Your task to perform on an android device: change the upload size in google photos Image 0: 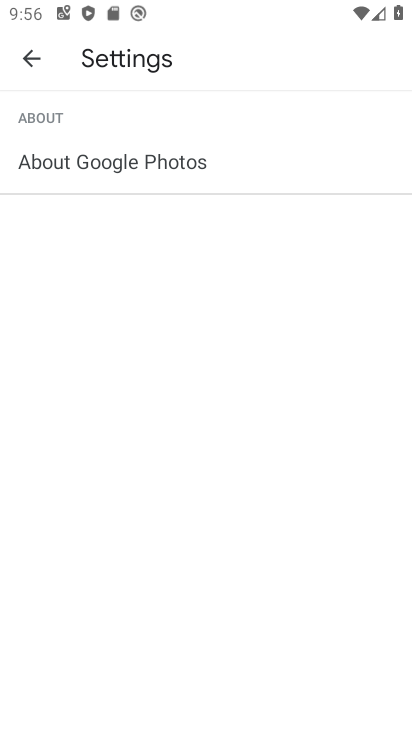
Step 0: press home button
Your task to perform on an android device: change the upload size in google photos Image 1: 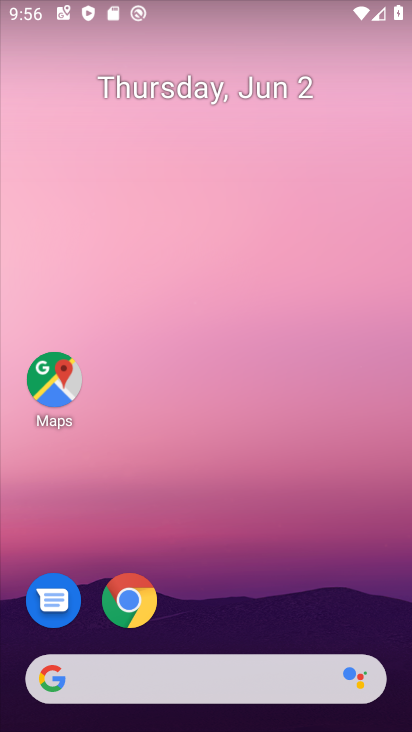
Step 1: drag from (120, 720) to (217, 123)
Your task to perform on an android device: change the upload size in google photos Image 2: 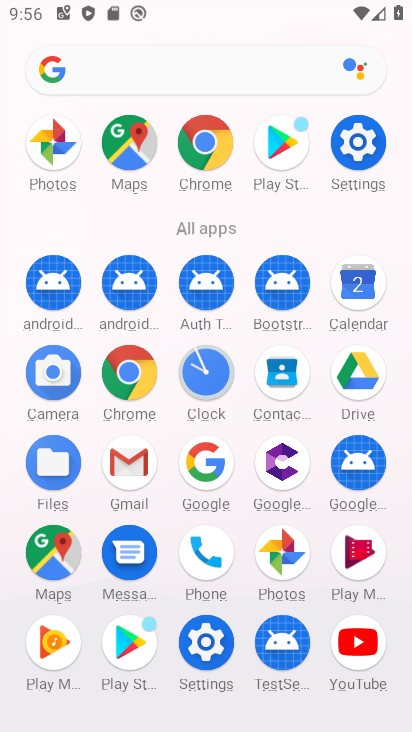
Step 2: click (279, 573)
Your task to perform on an android device: change the upload size in google photos Image 3: 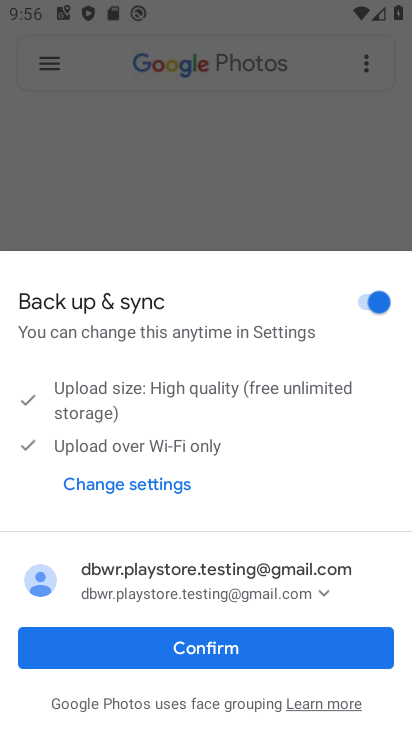
Step 3: click (323, 652)
Your task to perform on an android device: change the upload size in google photos Image 4: 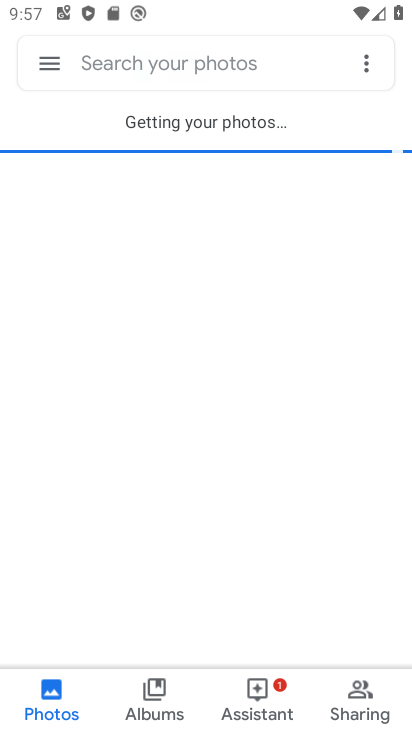
Step 4: click (46, 59)
Your task to perform on an android device: change the upload size in google photos Image 5: 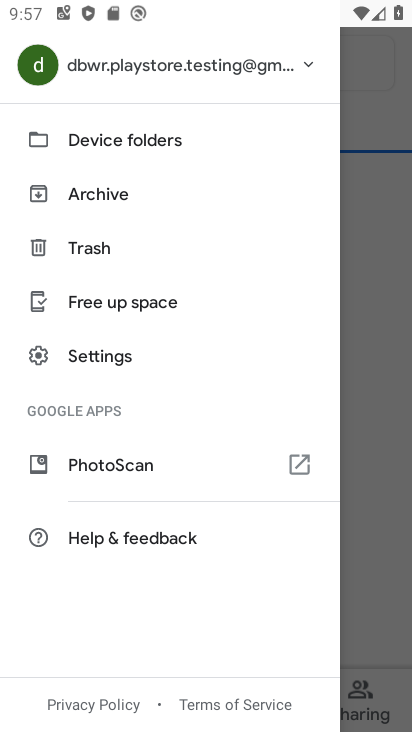
Step 5: click (121, 359)
Your task to perform on an android device: change the upload size in google photos Image 6: 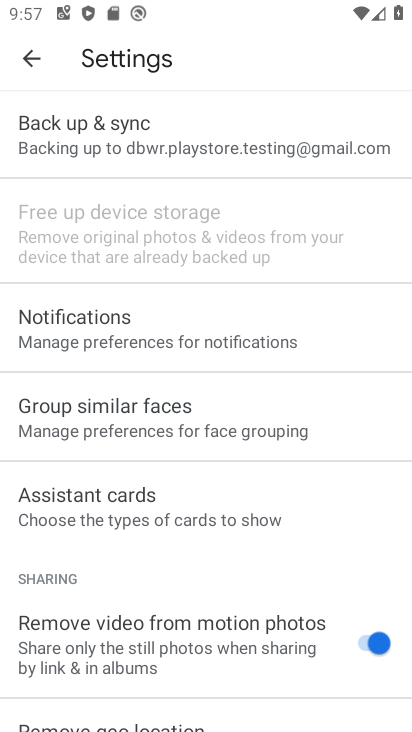
Step 6: click (187, 134)
Your task to perform on an android device: change the upload size in google photos Image 7: 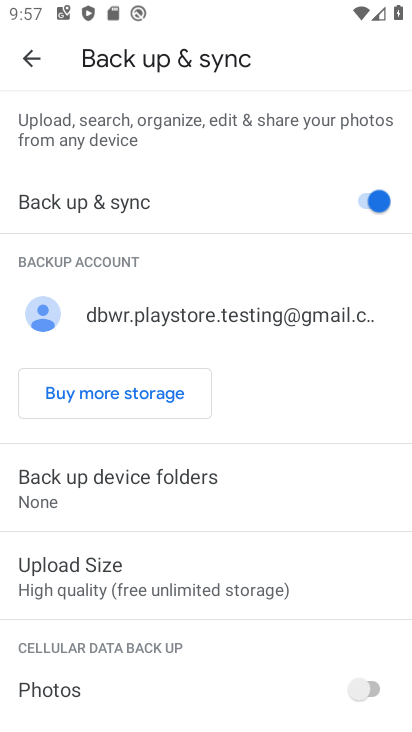
Step 7: click (117, 572)
Your task to perform on an android device: change the upload size in google photos Image 8: 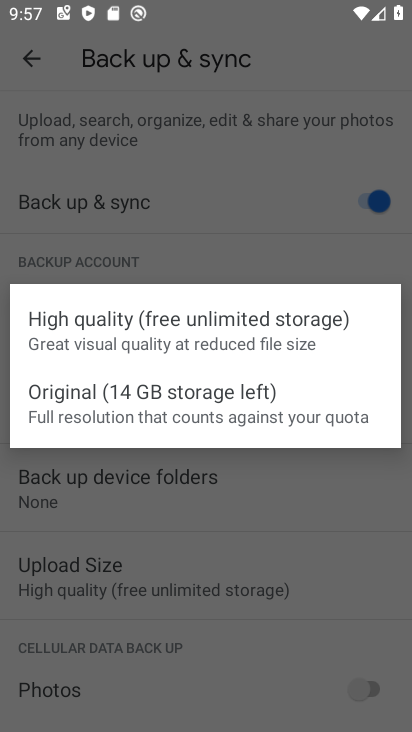
Step 8: click (112, 412)
Your task to perform on an android device: change the upload size in google photos Image 9: 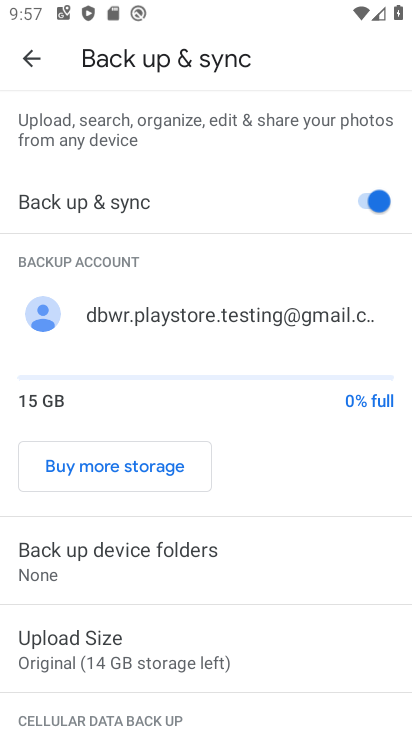
Step 9: task complete